Your task to perform on an android device: Open Amazon Image 0: 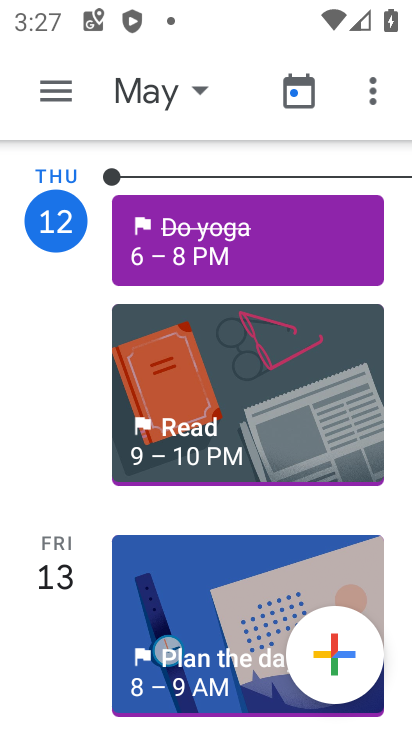
Step 0: press home button
Your task to perform on an android device: Open Amazon Image 1: 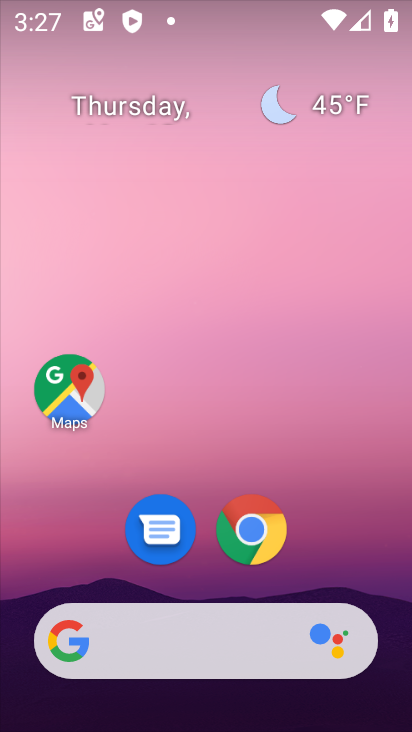
Step 1: drag from (371, 529) to (390, 12)
Your task to perform on an android device: Open Amazon Image 2: 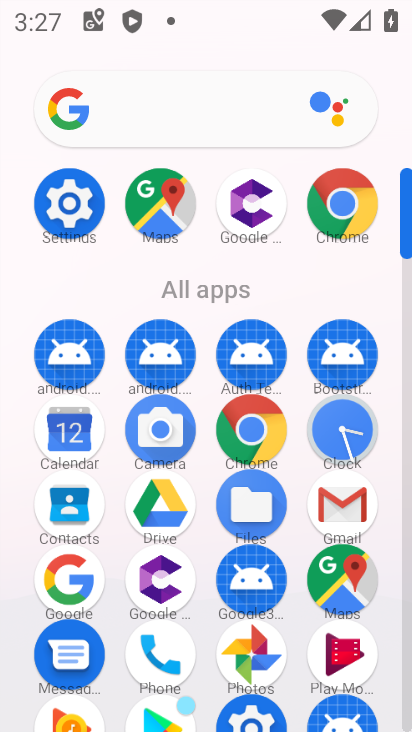
Step 2: drag from (383, 377) to (401, 24)
Your task to perform on an android device: Open Amazon Image 3: 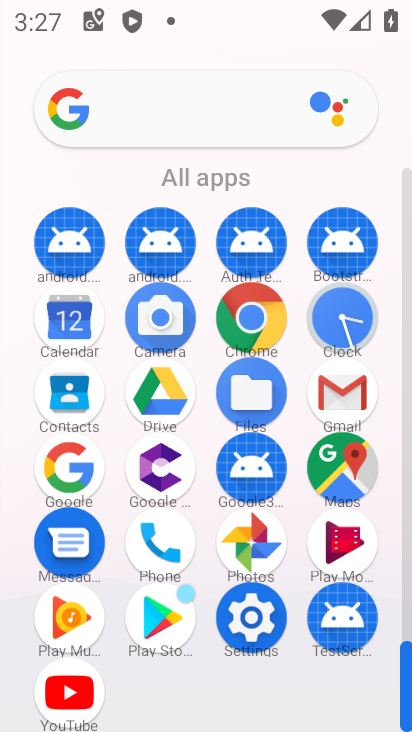
Step 3: click (236, 326)
Your task to perform on an android device: Open Amazon Image 4: 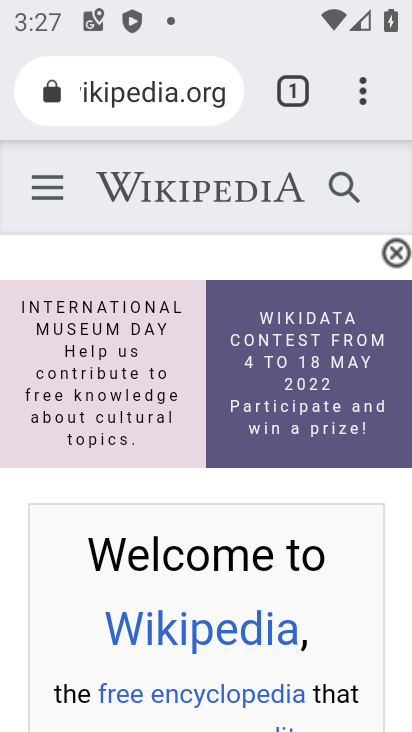
Step 4: click (159, 100)
Your task to perform on an android device: Open Amazon Image 5: 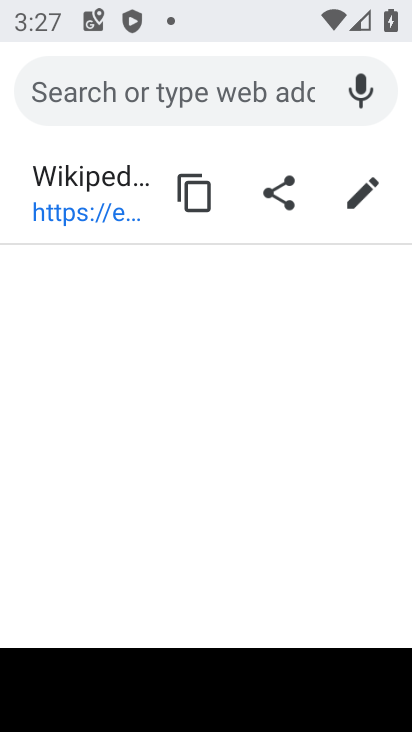
Step 5: type "amazon"
Your task to perform on an android device: Open Amazon Image 6: 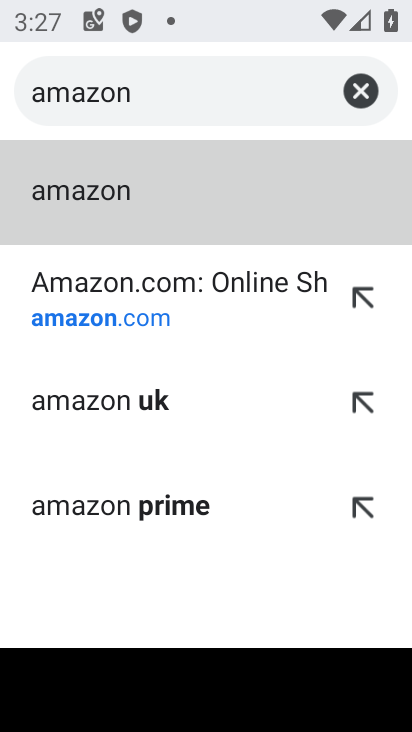
Step 6: click (74, 199)
Your task to perform on an android device: Open Amazon Image 7: 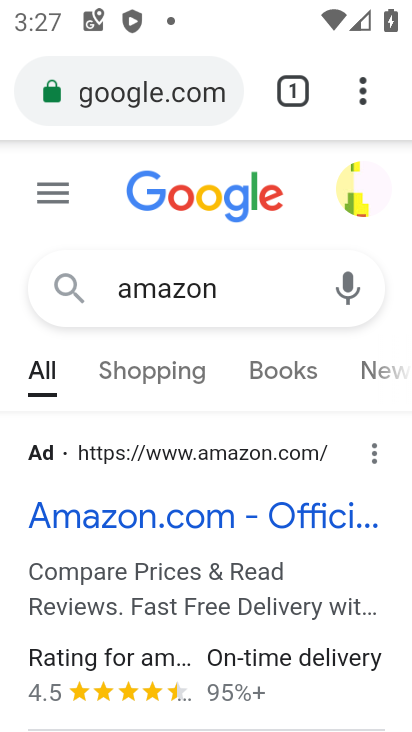
Step 7: click (169, 519)
Your task to perform on an android device: Open Amazon Image 8: 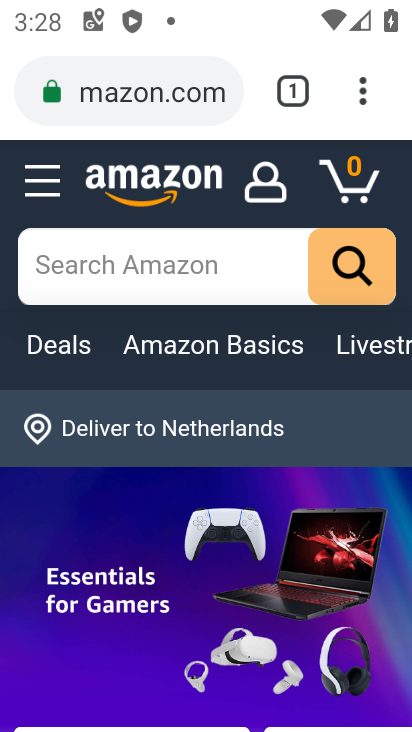
Step 8: task complete